Your task to perform on an android device: find snoozed emails in the gmail app Image 0: 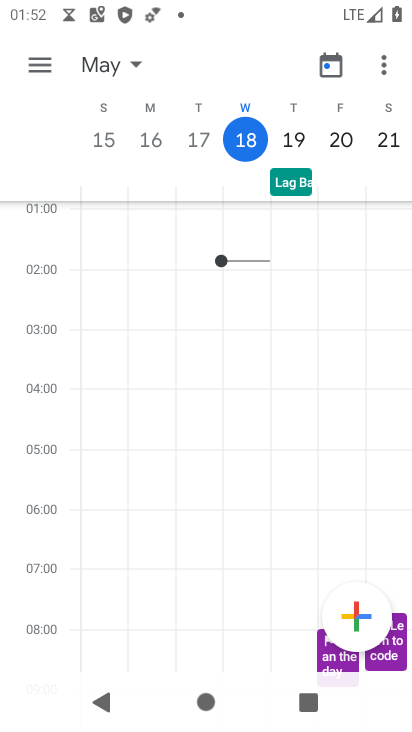
Step 0: press home button
Your task to perform on an android device: find snoozed emails in the gmail app Image 1: 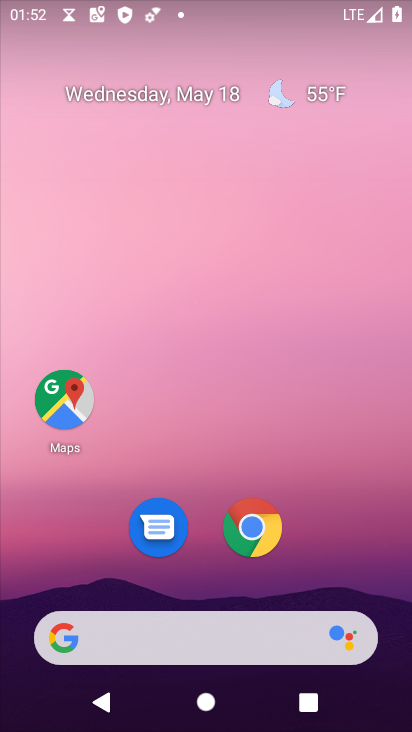
Step 1: drag from (340, 567) to (208, 118)
Your task to perform on an android device: find snoozed emails in the gmail app Image 2: 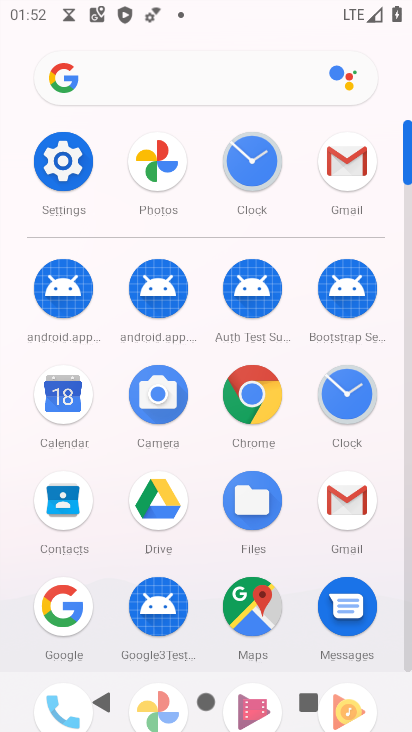
Step 2: click (343, 165)
Your task to perform on an android device: find snoozed emails in the gmail app Image 3: 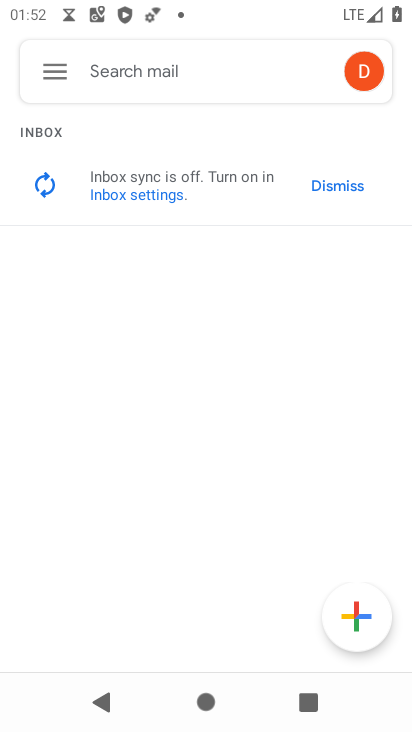
Step 3: click (51, 64)
Your task to perform on an android device: find snoozed emails in the gmail app Image 4: 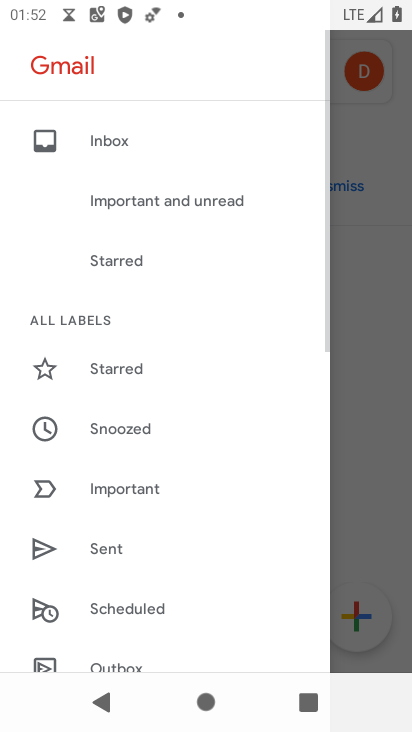
Step 4: click (159, 431)
Your task to perform on an android device: find snoozed emails in the gmail app Image 5: 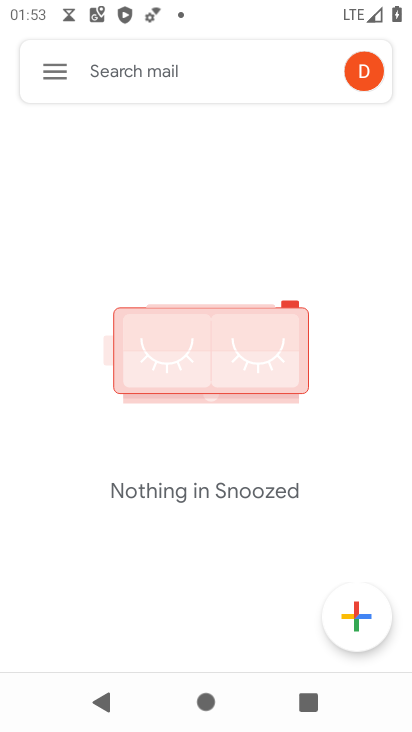
Step 5: task complete